Your task to perform on an android device: View the shopping cart on target. Search for "usb-a" on target, select the first entry, add it to the cart, then select checkout. Image 0: 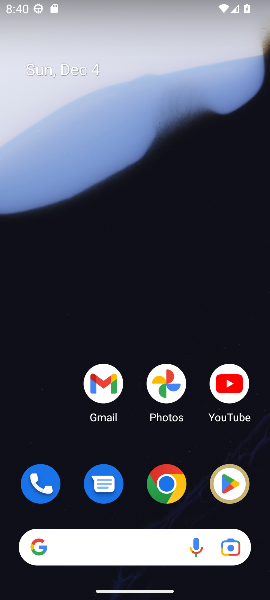
Step 0: click (169, 487)
Your task to perform on an android device: View the shopping cart on target. Search for "usb-a" on target, select the first entry, add it to the cart, then select checkout. Image 1: 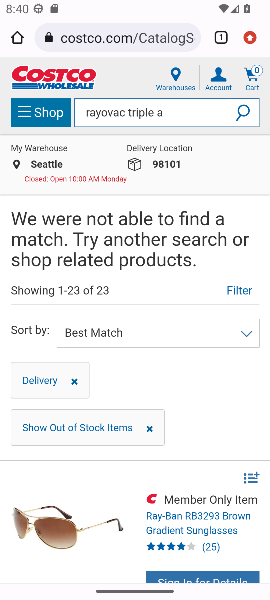
Step 1: click (103, 41)
Your task to perform on an android device: View the shopping cart on target. Search for "usb-a" on target, select the first entry, add it to the cart, then select checkout. Image 2: 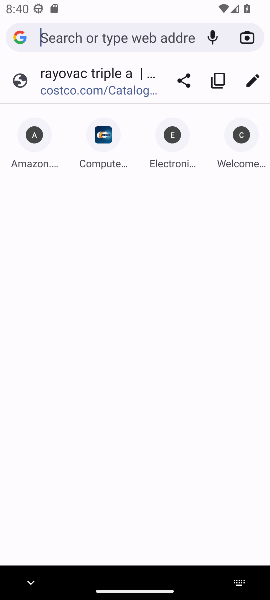
Step 2: type "target.com"
Your task to perform on an android device: View the shopping cart on target. Search for "usb-a" on target, select the first entry, add it to the cart, then select checkout. Image 3: 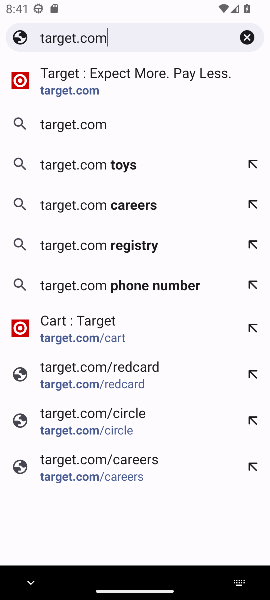
Step 3: click (79, 88)
Your task to perform on an android device: View the shopping cart on target. Search for "usb-a" on target, select the first entry, add it to the cart, then select checkout. Image 4: 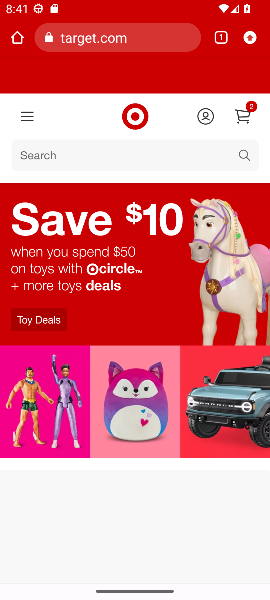
Step 4: click (240, 119)
Your task to perform on an android device: View the shopping cart on target. Search for "usb-a" on target, select the first entry, add it to the cart, then select checkout. Image 5: 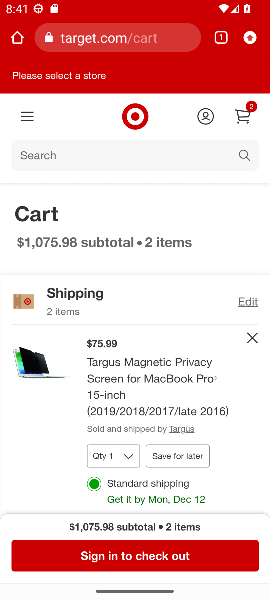
Step 5: drag from (62, 429) to (63, 204)
Your task to perform on an android device: View the shopping cart on target. Search for "usb-a" on target, select the first entry, add it to the cart, then select checkout. Image 6: 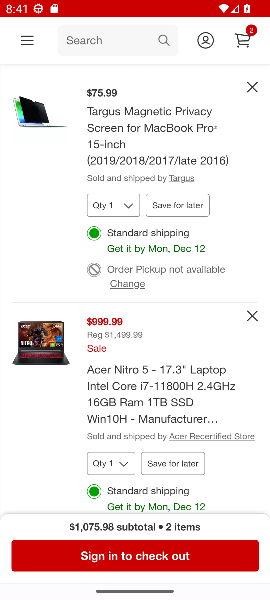
Step 6: click (164, 39)
Your task to perform on an android device: View the shopping cart on target. Search for "usb-a" on target, select the first entry, add it to the cart, then select checkout. Image 7: 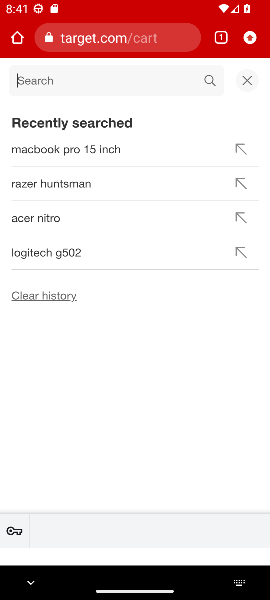
Step 7: type "usb-a"
Your task to perform on an android device: View the shopping cart on target. Search for "usb-a" on target, select the first entry, add it to the cart, then select checkout. Image 8: 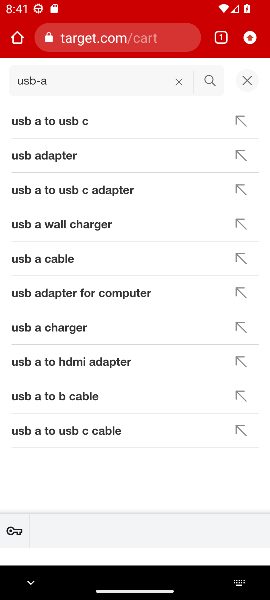
Step 8: click (214, 80)
Your task to perform on an android device: View the shopping cart on target. Search for "usb-a" on target, select the first entry, add it to the cart, then select checkout. Image 9: 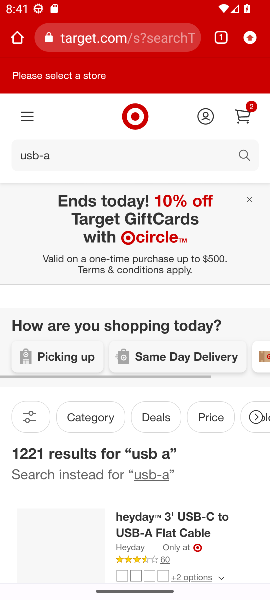
Step 9: drag from (160, 518) to (164, 242)
Your task to perform on an android device: View the shopping cart on target. Search for "usb-a" on target, select the first entry, add it to the cart, then select checkout. Image 10: 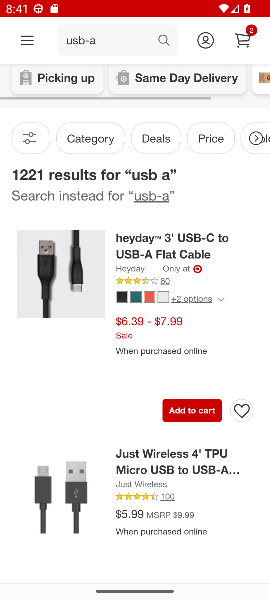
Step 10: click (178, 404)
Your task to perform on an android device: View the shopping cart on target. Search for "usb-a" on target, select the first entry, add it to the cart, then select checkout. Image 11: 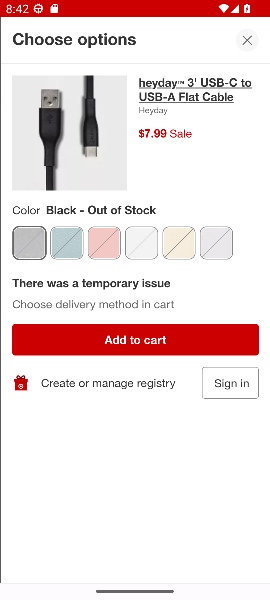
Step 11: click (118, 337)
Your task to perform on an android device: View the shopping cart on target. Search for "usb-a" on target, select the first entry, add it to the cart, then select checkout. Image 12: 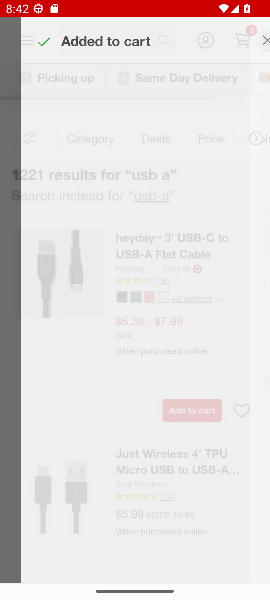
Step 12: click (263, 42)
Your task to perform on an android device: View the shopping cart on target. Search for "usb-a" on target, select the first entry, add it to the cart, then select checkout. Image 13: 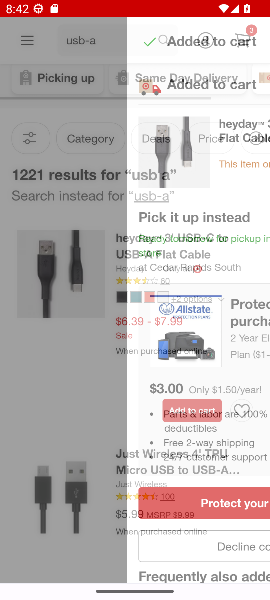
Step 13: click (251, 37)
Your task to perform on an android device: View the shopping cart on target. Search for "usb-a" on target, select the first entry, add it to the cart, then select checkout. Image 14: 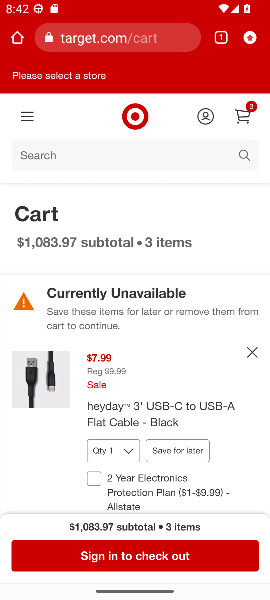
Step 14: click (140, 566)
Your task to perform on an android device: View the shopping cart on target. Search for "usb-a" on target, select the first entry, add it to the cart, then select checkout. Image 15: 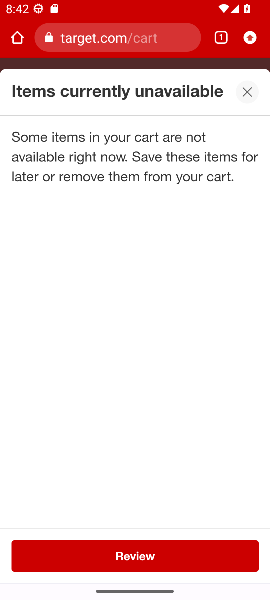
Step 15: task complete